Your task to perform on an android device: Show me productivity apps on the Play Store Image 0: 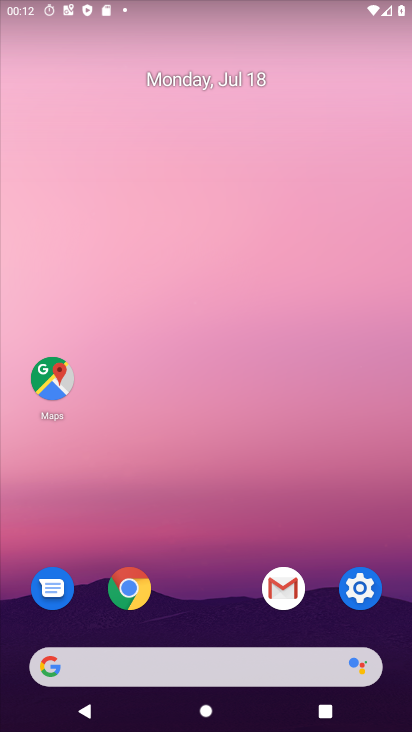
Step 0: drag from (299, 691) to (209, 153)
Your task to perform on an android device: Show me productivity apps on the Play Store Image 1: 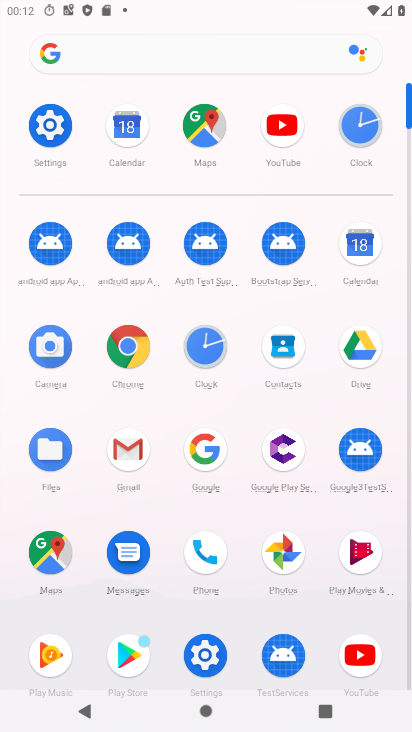
Step 1: click (141, 640)
Your task to perform on an android device: Show me productivity apps on the Play Store Image 2: 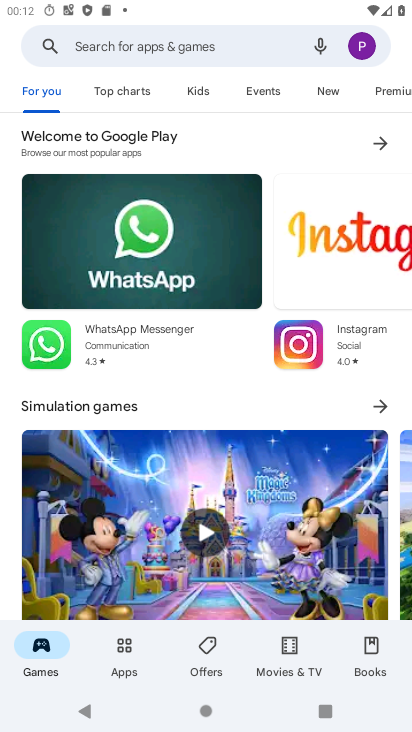
Step 2: click (139, 47)
Your task to perform on an android device: Show me productivity apps on the Play Store Image 3: 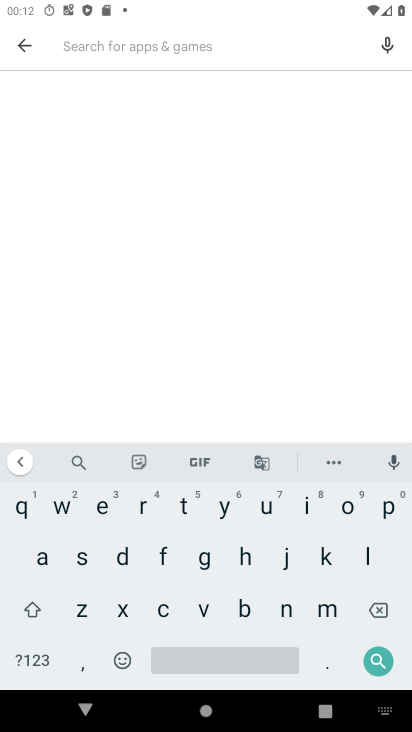
Step 3: click (385, 516)
Your task to perform on an android device: Show me productivity apps on the Play Store Image 4: 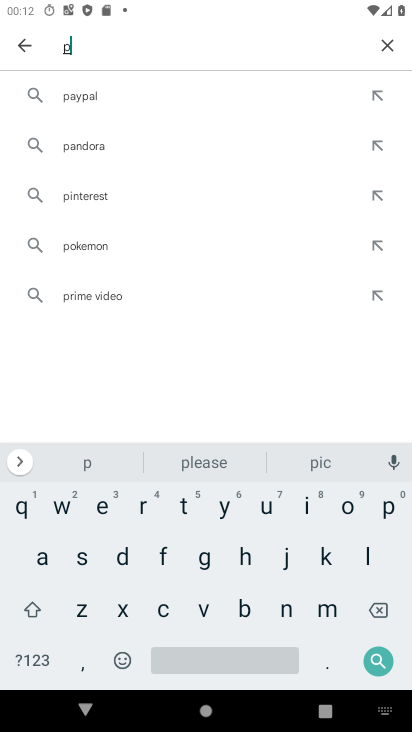
Step 4: click (144, 503)
Your task to perform on an android device: Show me productivity apps on the Play Store Image 5: 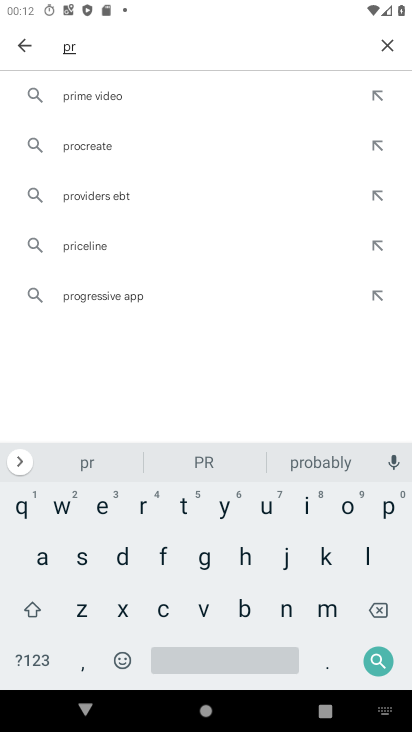
Step 5: click (349, 515)
Your task to perform on an android device: Show me productivity apps on the Play Store Image 6: 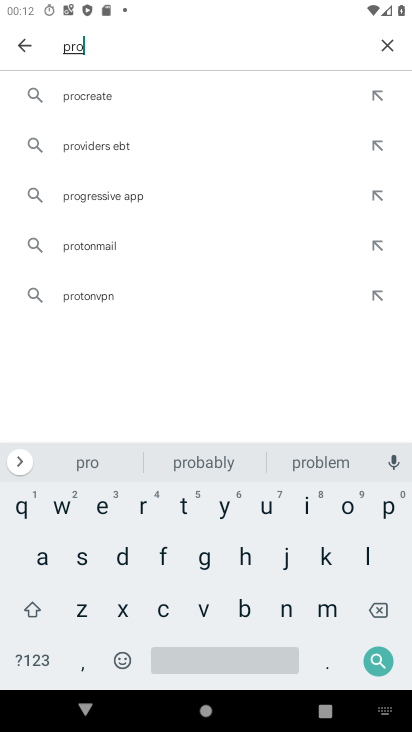
Step 6: click (117, 561)
Your task to perform on an android device: Show me productivity apps on the Play Store Image 7: 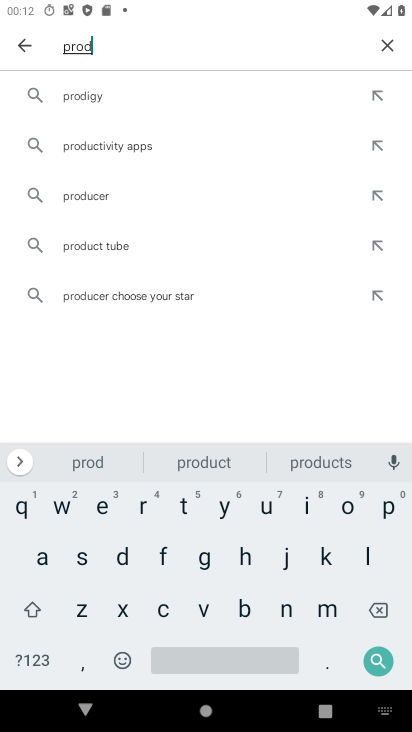
Step 7: click (113, 145)
Your task to perform on an android device: Show me productivity apps on the Play Store Image 8: 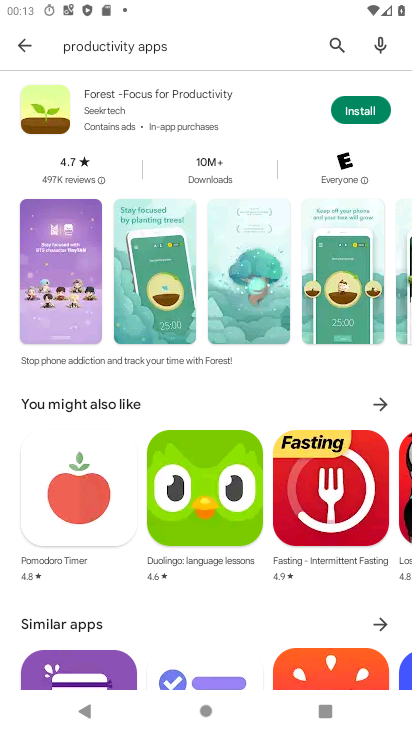
Step 8: task complete